Your task to perform on an android device: read, delete, or share a saved page in the chrome app Image 0: 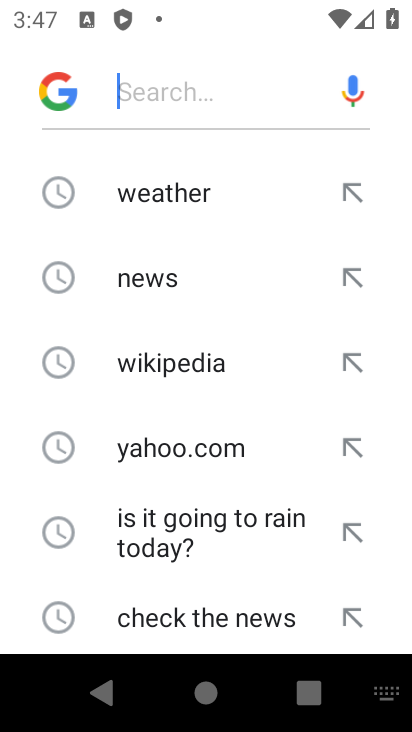
Step 0: task complete